Your task to perform on an android device: turn notification dots on Image 0: 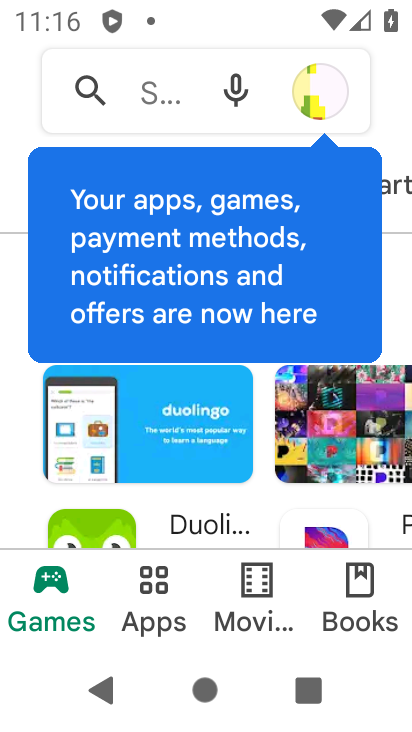
Step 0: press home button
Your task to perform on an android device: turn notification dots on Image 1: 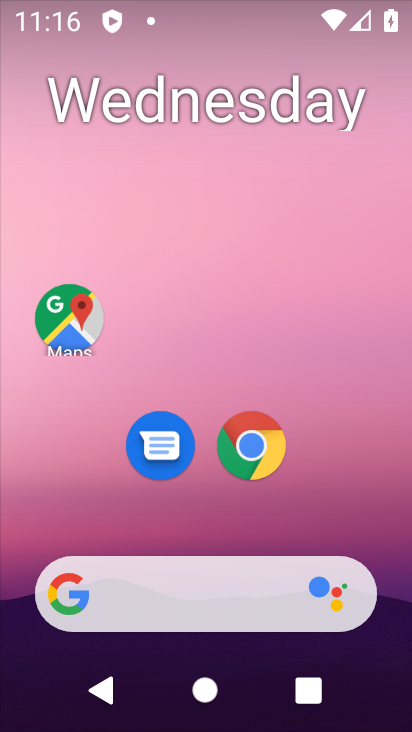
Step 1: drag from (287, 499) to (309, 368)
Your task to perform on an android device: turn notification dots on Image 2: 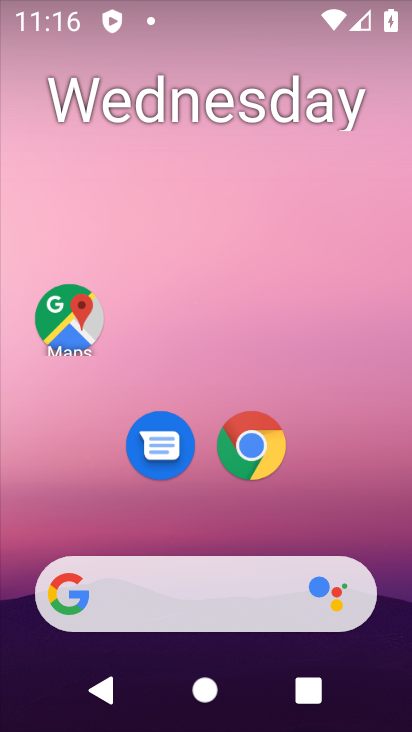
Step 2: drag from (330, 489) to (245, 191)
Your task to perform on an android device: turn notification dots on Image 3: 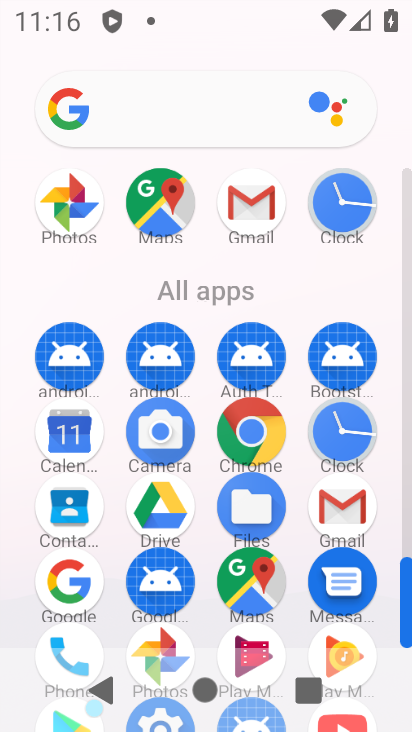
Step 3: drag from (153, 697) to (113, 416)
Your task to perform on an android device: turn notification dots on Image 4: 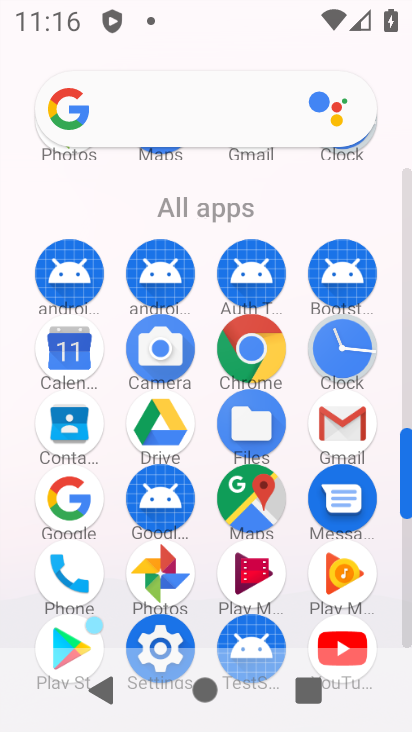
Step 4: click (151, 634)
Your task to perform on an android device: turn notification dots on Image 5: 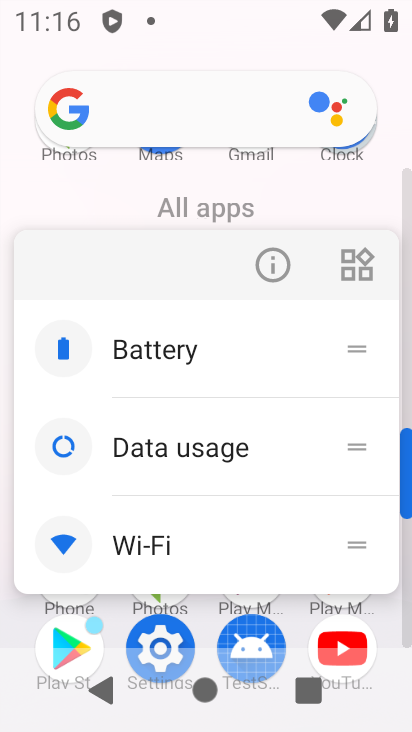
Step 5: click (150, 634)
Your task to perform on an android device: turn notification dots on Image 6: 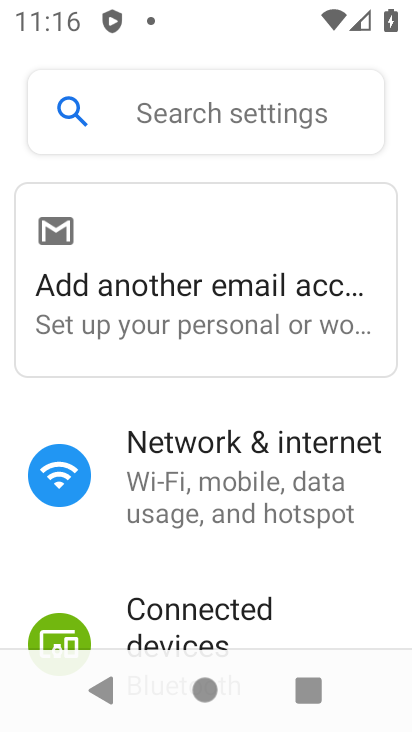
Step 6: drag from (181, 597) to (100, 234)
Your task to perform on an android device: turn notification dots on Image 7: 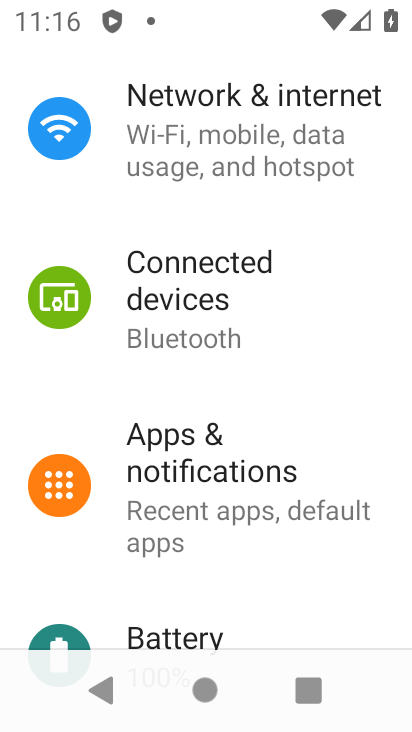
Step 7: click (169, 463)
Your task to perform on an android device: turn notification dots on Image 8: 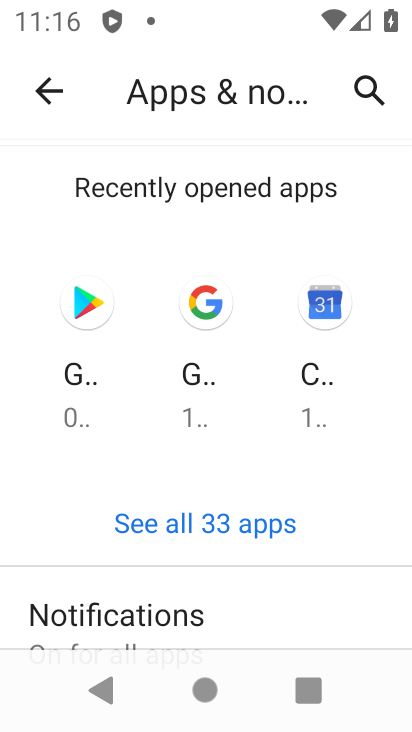
Step 8: drag from (279, 580) to (107, 83)
Your task to perform on an android device: turn notification dots on Image 9: 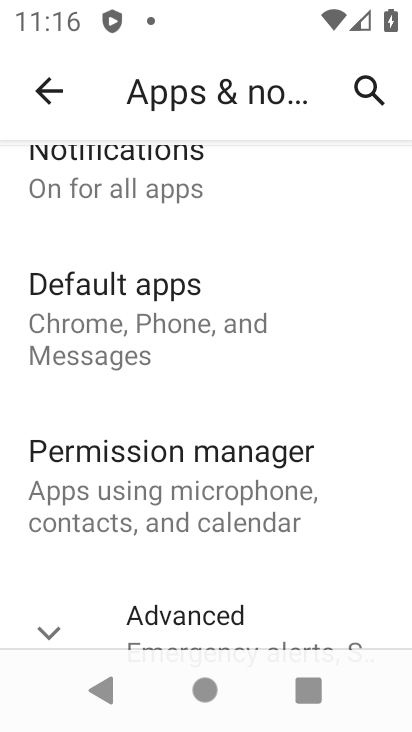
Step 9: click (118, 189)
Your task to perform on an android device: turn notification dots on Image 10: 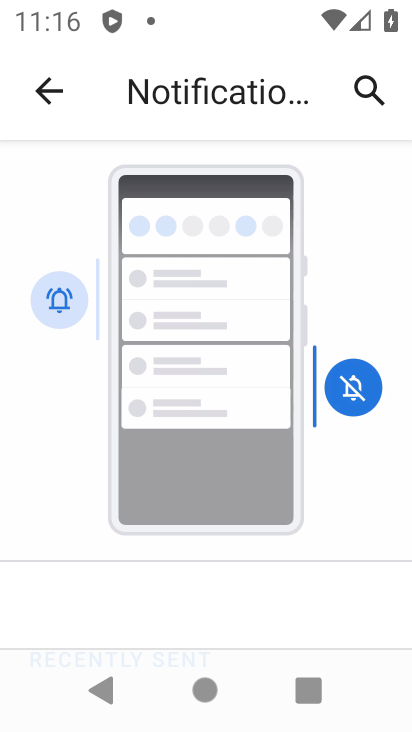
Step 10: drag from (157, 592) to (62, 99)
Your task to perform on an android device: turn notification dots on Image 11: 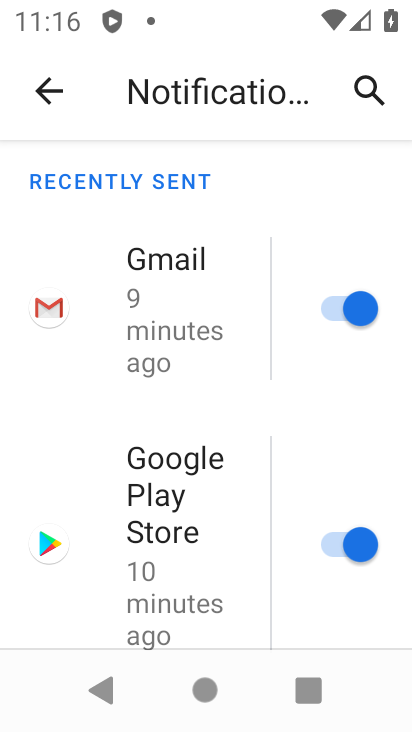
Step 11: drag from (127, 508) to (89, 86)
Your task to perform on an android device: turn notification dots on Image 12: 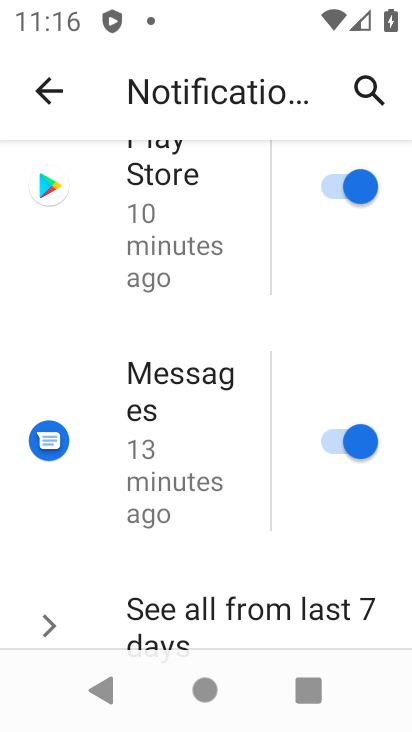
Step 12: drag from (138, 557) to (122, 197)
Your task to perform on an android device: turn notification dots on Image 13: 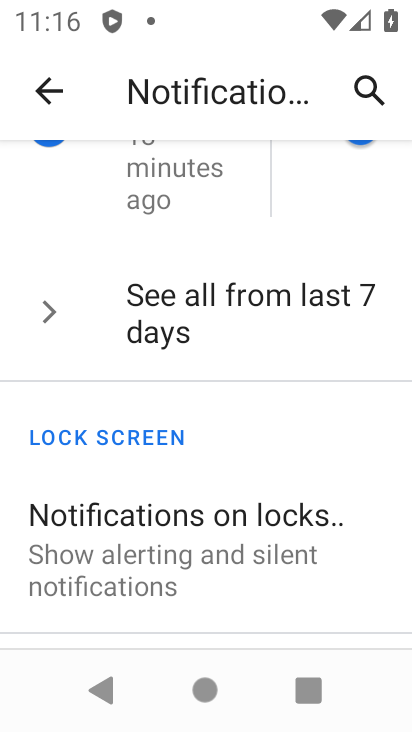
Step 13: drag from (127, 593) to (56, 205)
Your task to perform on an android device: turn notification dots on Image 14: 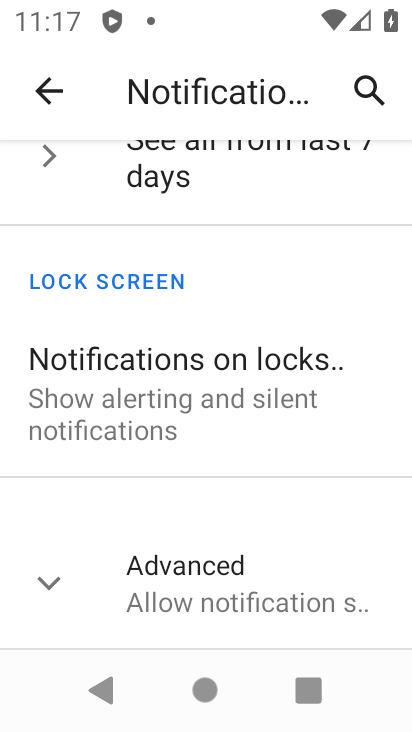
Step 14: click (95, 586)
Your task to perform on an android device: turn notification dots on Image 15: 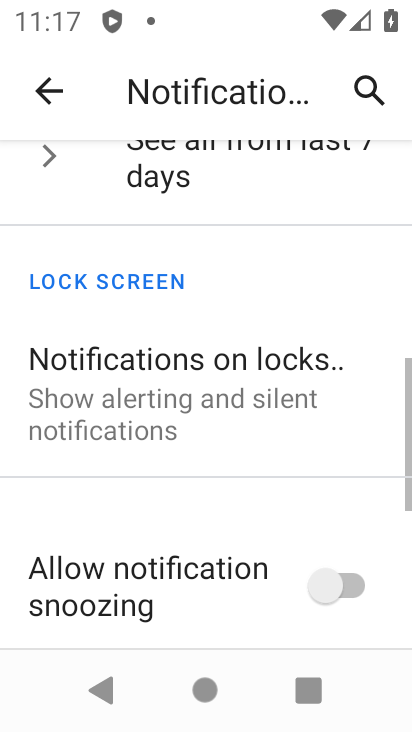
Step 15: task complete